Your task to perform on an android device: Open maps Image 0: 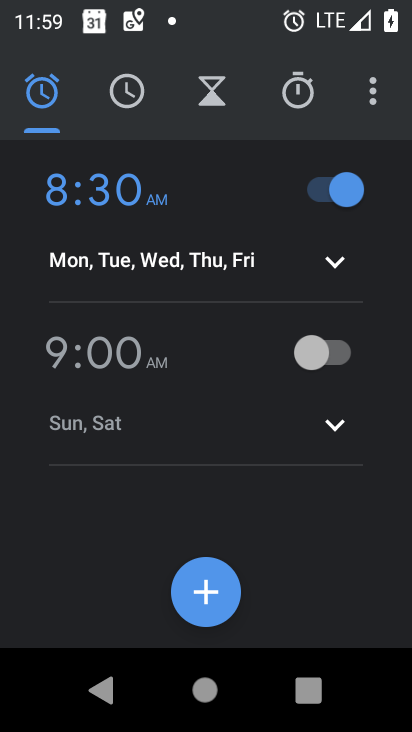
Step 0: press home button
Your task to perform on an android device: Open maps Image 1: 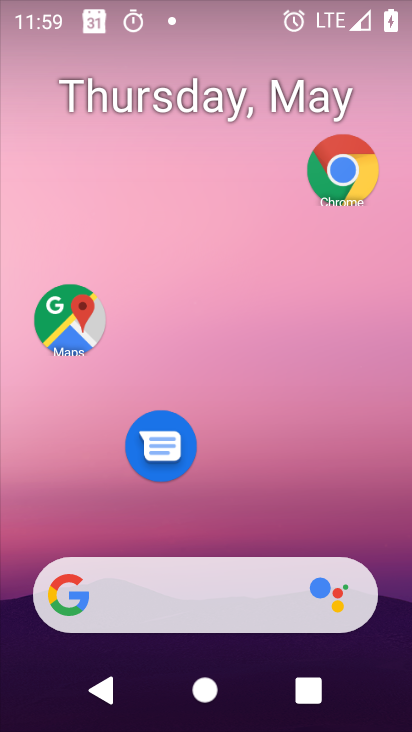
Step 1: drag from (221, 631) to (263, 83)
Your task to perform on an android device: Open maps Image 2: 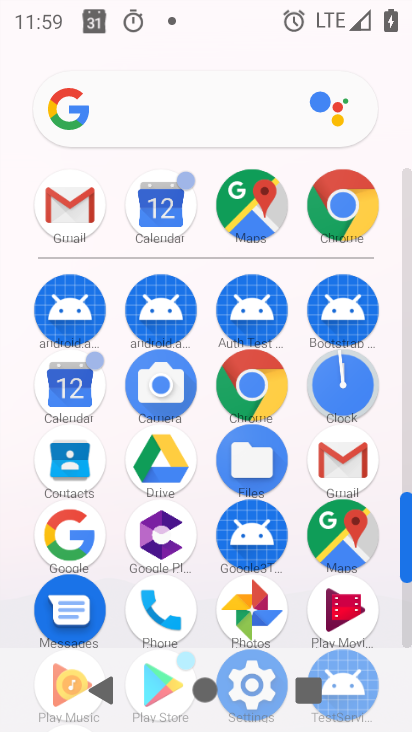
Step 2: click (317, 549)
Your task to perform on an android device: Open maps Image 3: 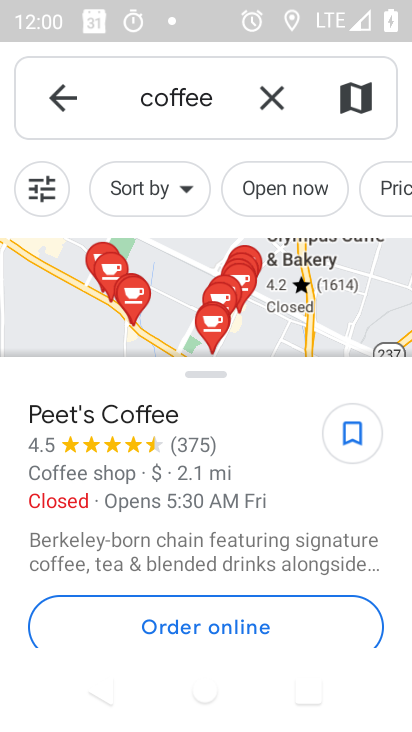
Step 3: task complete